Your task to perform on an android device: Add "dell alienware" to the cart on costco.com, then select checkout. Image 0: 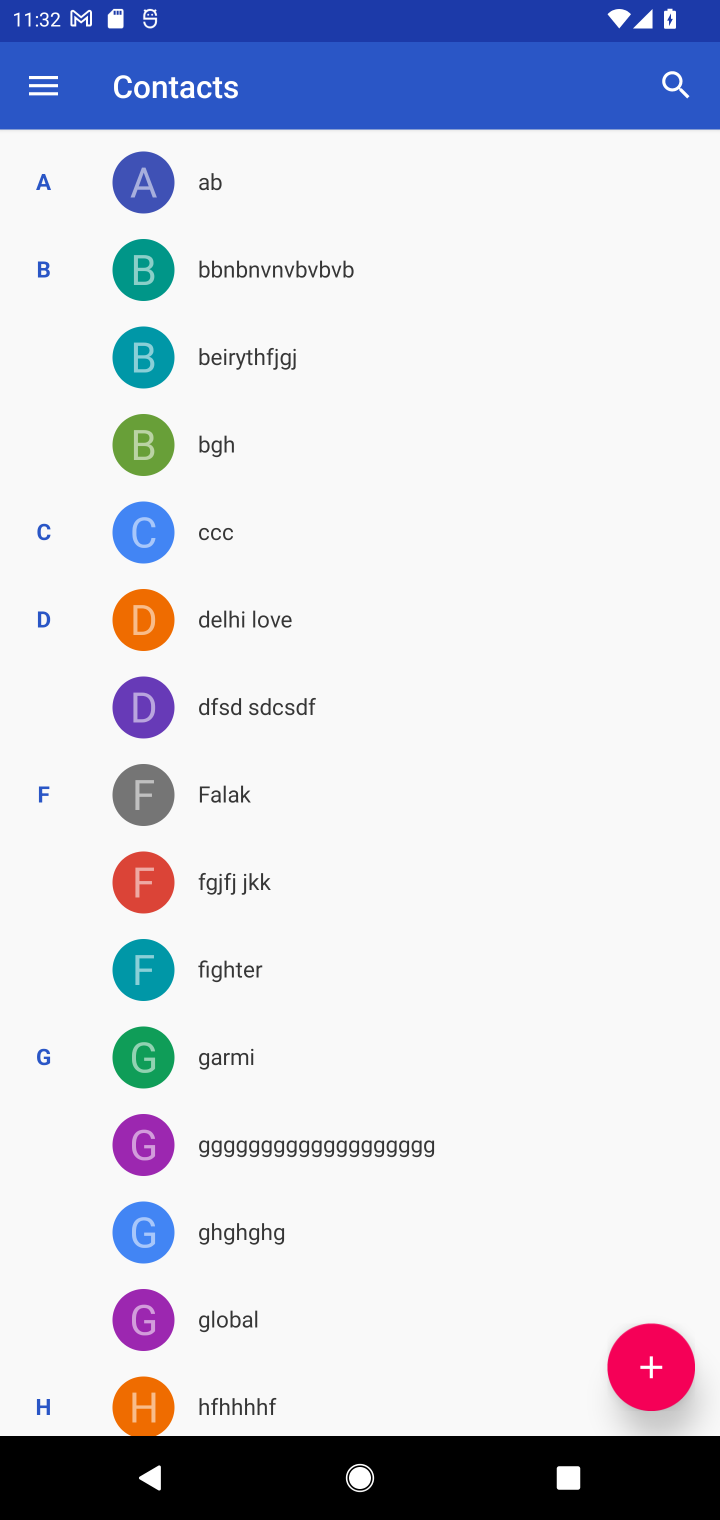
Step 0: press home button
Your task to perform on an android device: Add "dell alienware" to the cart on costco.com, then select checkout. Image 1: 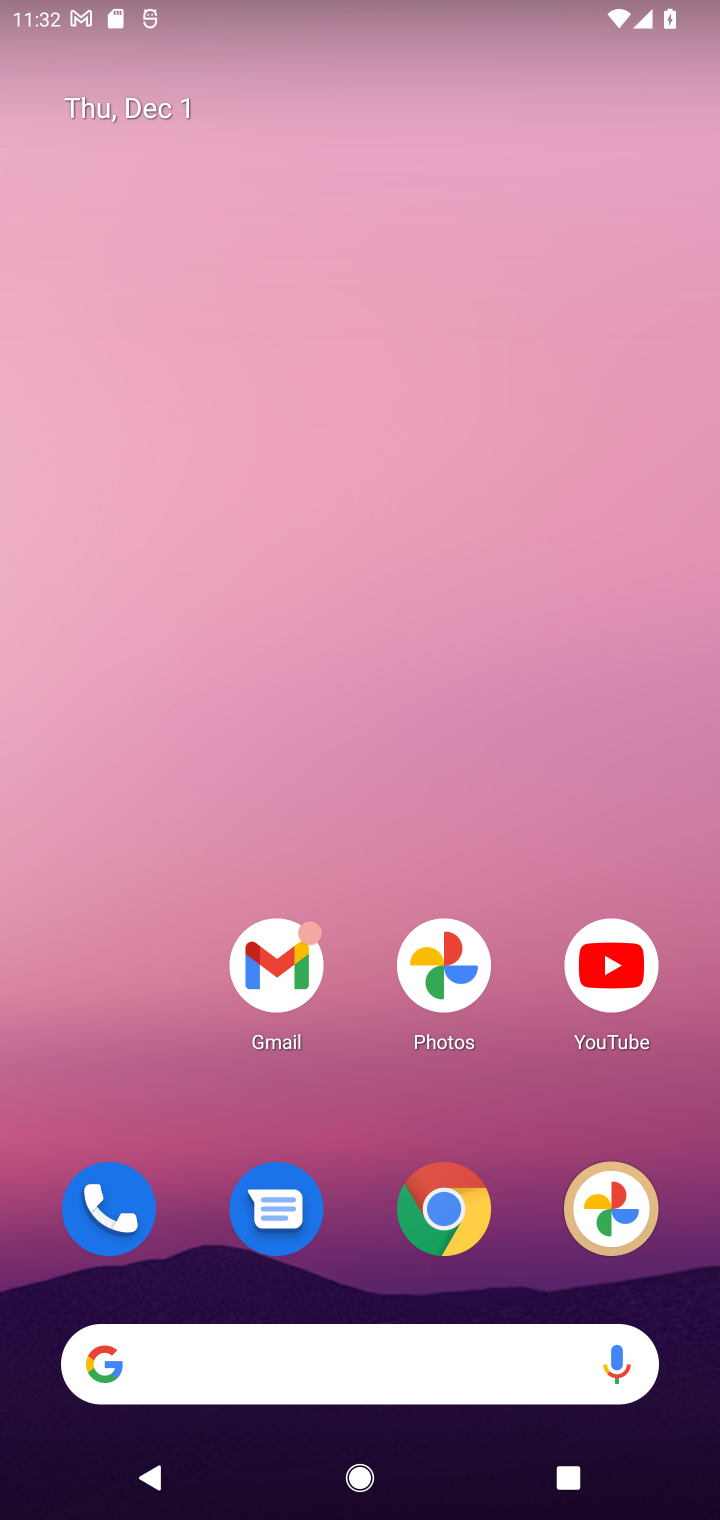
Step 1: click (441, 1211)
Your task to perform on an android device: Add "dell alienware" to the cart on costco.com, then select checkout. Image 2: 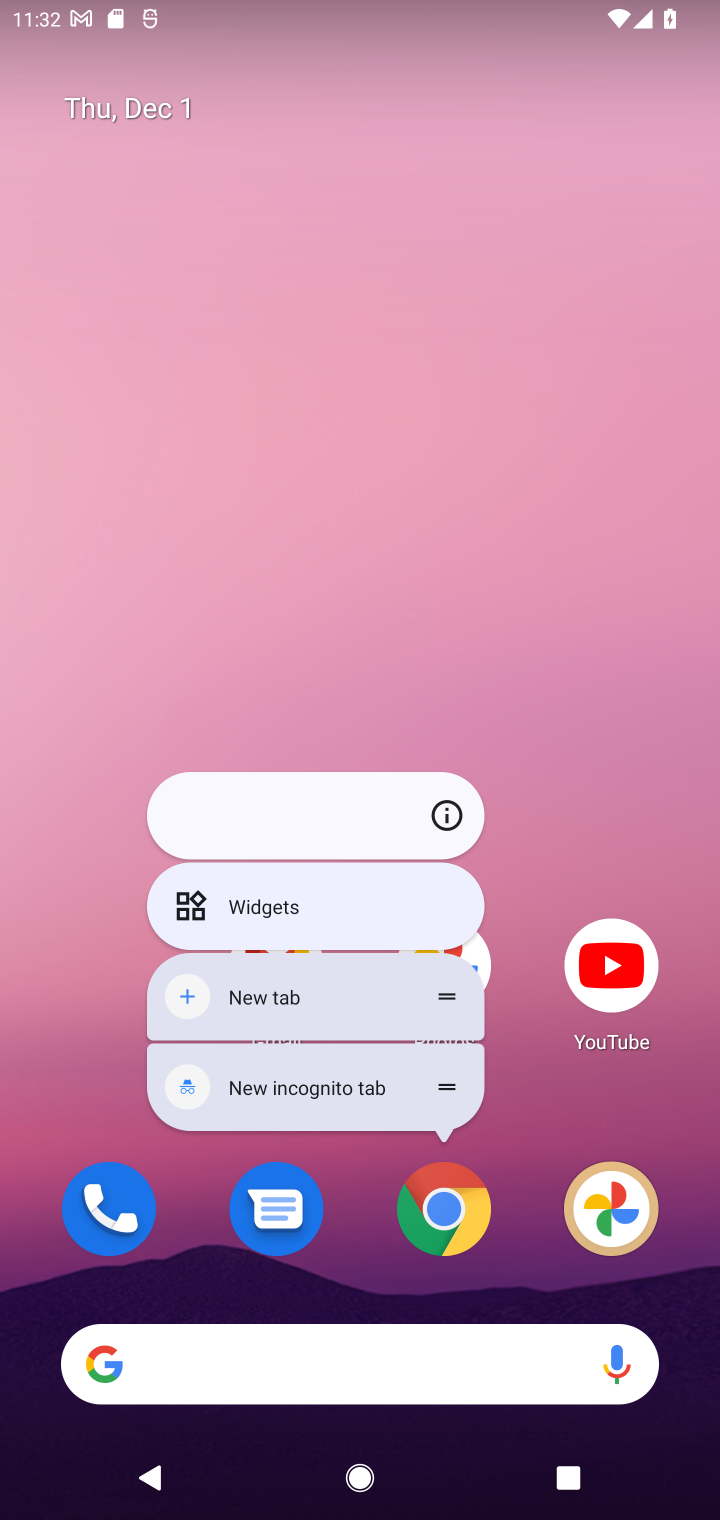
Step 2: click (439, 1203)
Your task to perform on an android device: Add "dell alienware" to the cart on costco.com, then select checkout. Image 3: 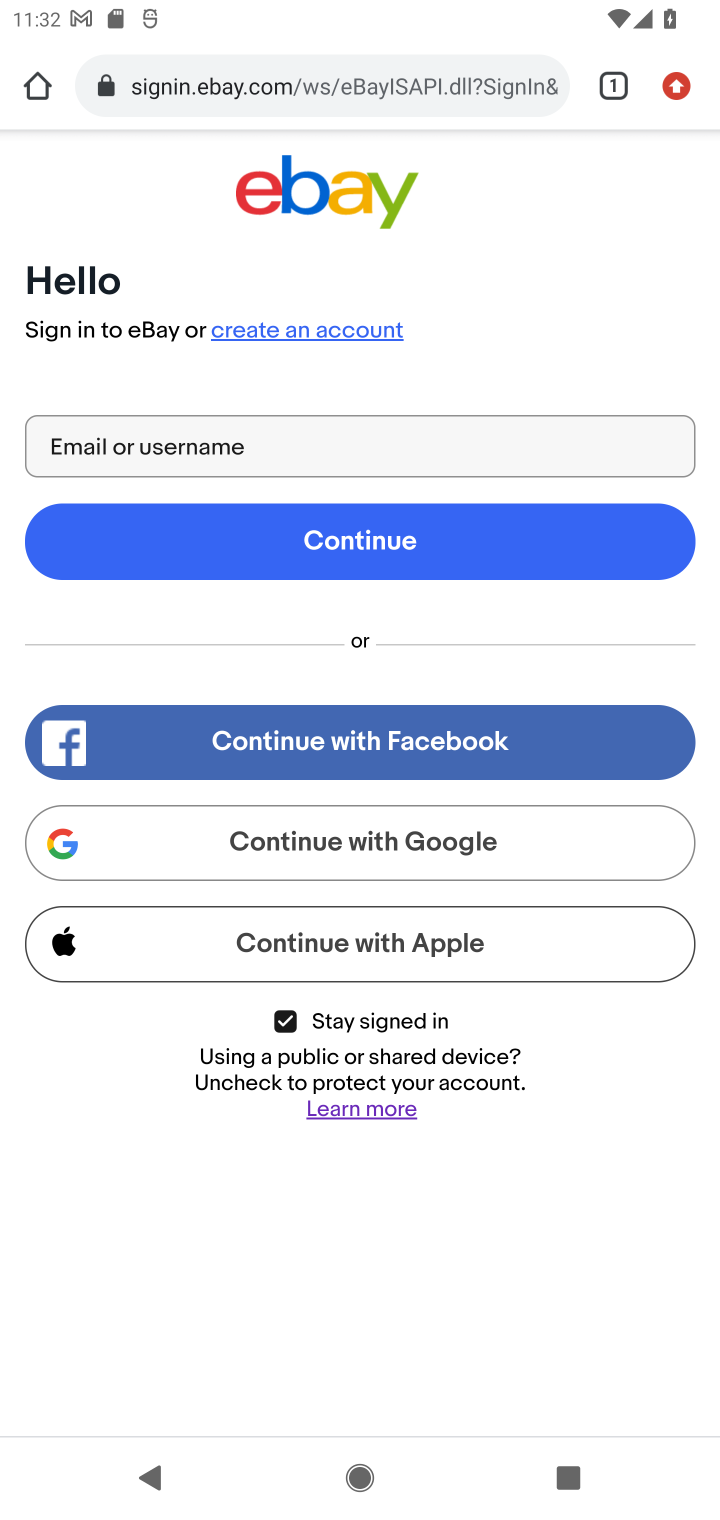
Step 3: click (365, 93)
Your task to perform on an android device: Add "dell alienware" to the cart on costco.com, then select checkout. Image 4: 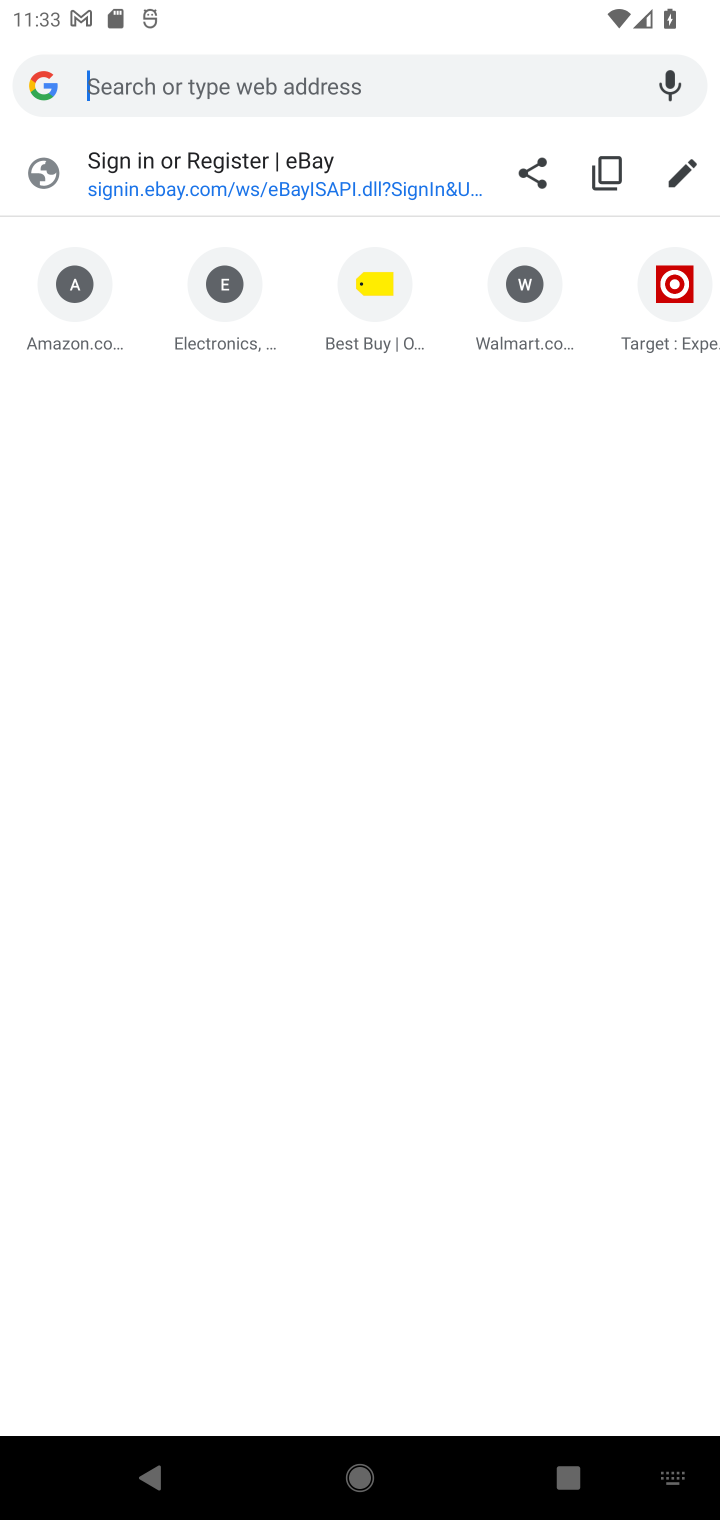
Step 4: type "costco"
Your task to perform on an android device: Add "dell alienware" to the cart on costco.com, then select checkout. Image 5: 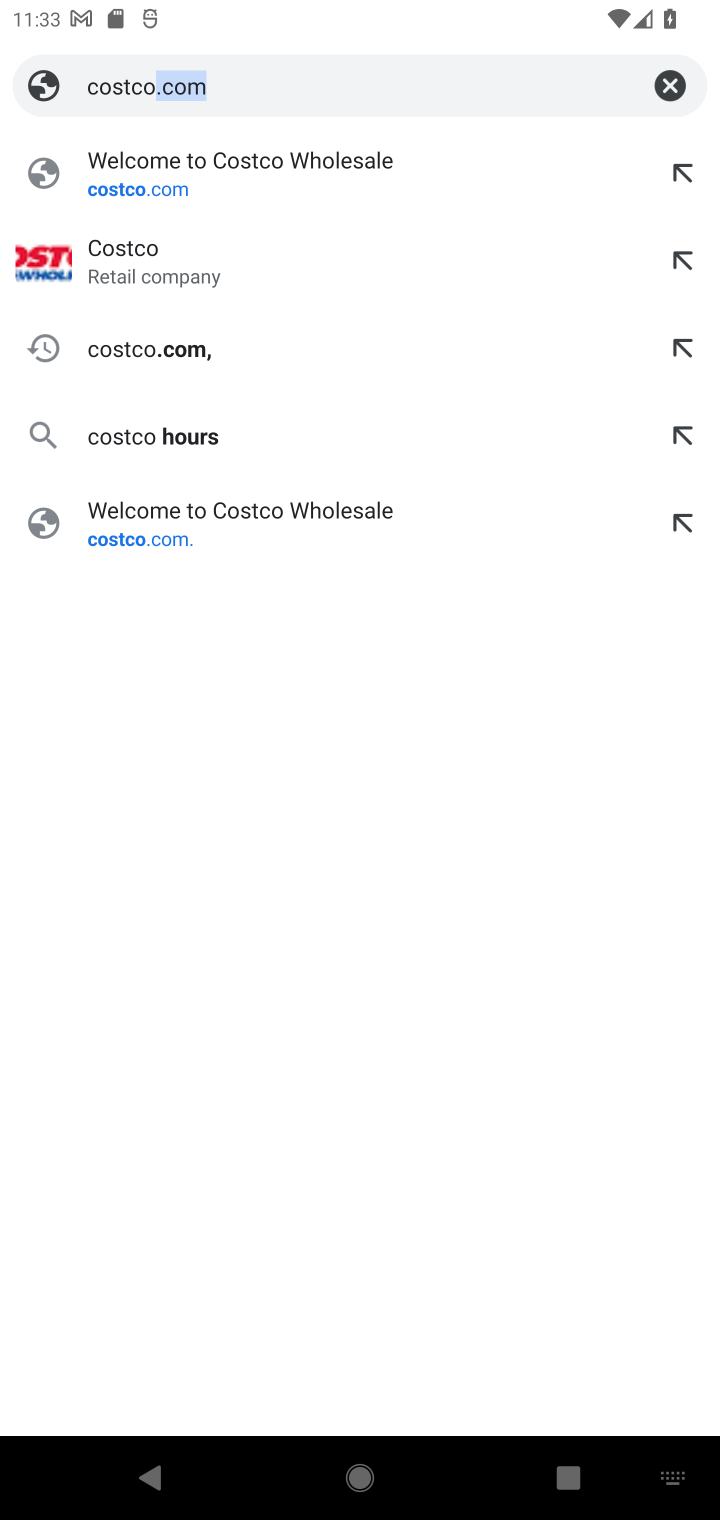
Step 5: click (120, 261)
Your task to perform on an android device: Add "dell alienware" to the cart on costco.com, then select checkout. Image 6: 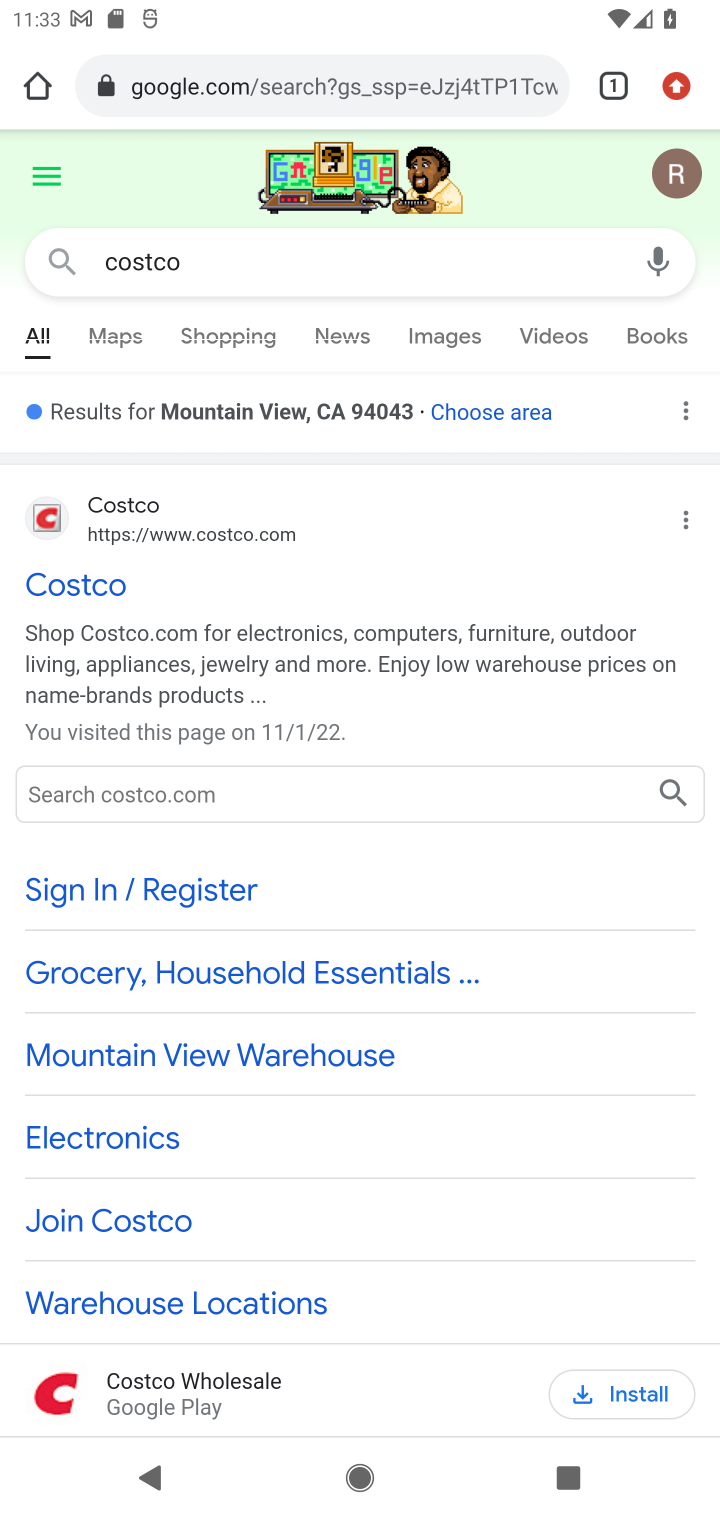
Step 6: click (87, 596)
Your task to perform on an android device: Add "dell alienware" to the cart on costco.com, then select checkout. Image 7: 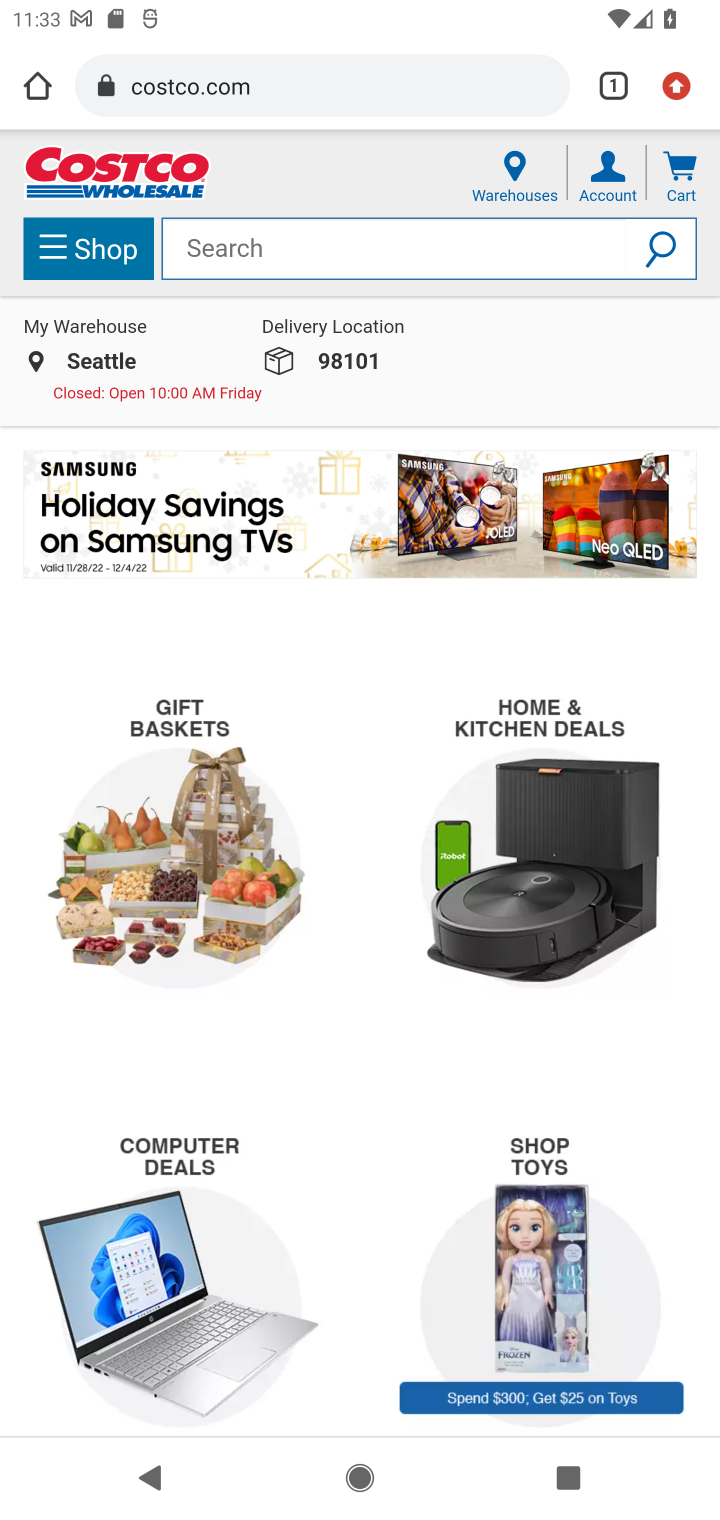
Step 7: click (353, 256)
Your task to perform on an android device: Add "dell alienware" to the cart on costco.com, then select checkout. Image 8: 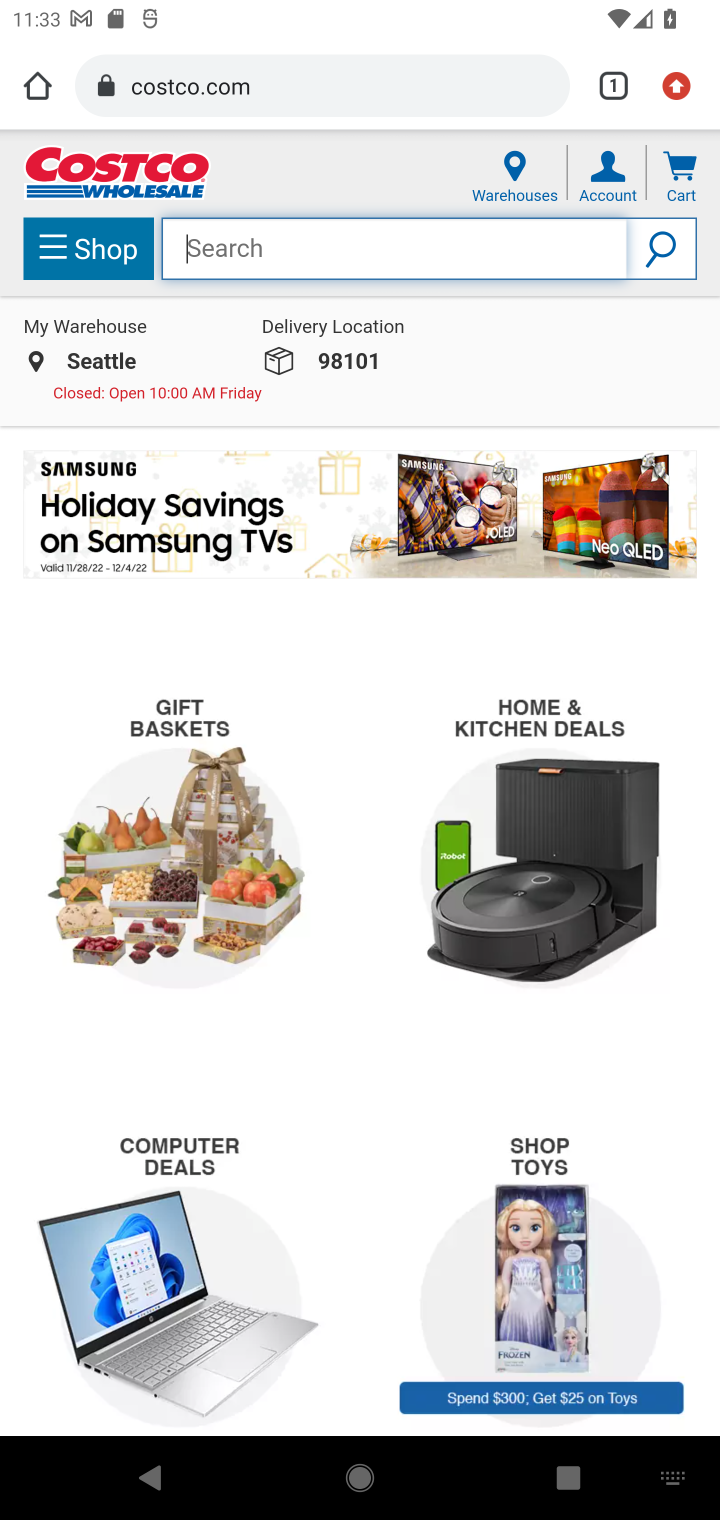
Step 8: type "dell alienware"
Your task to perform on an android device: Add "dell alienware" to the cart on costco.com, then select checkout. Image 9: 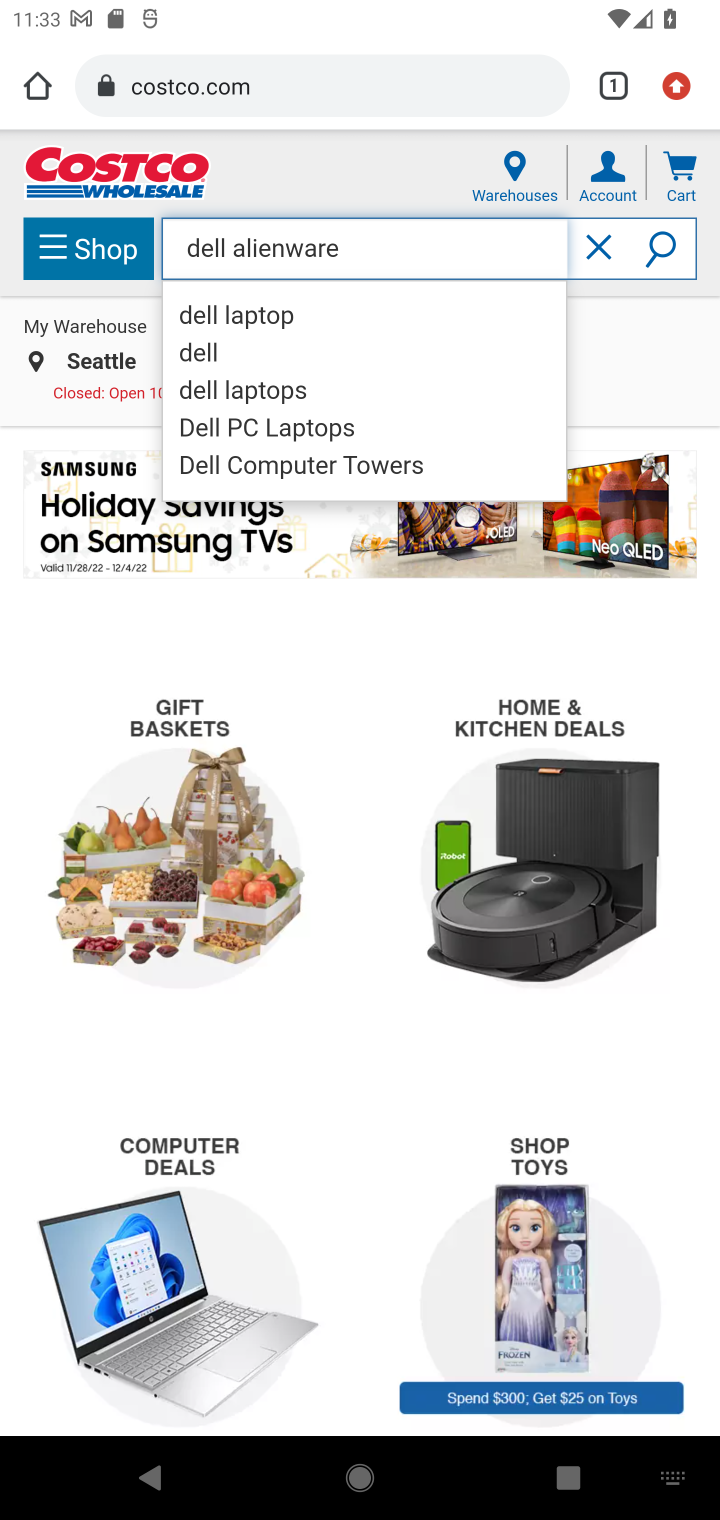
Step 9: click (243, 325)
Your task to perform on an android device: Add "dell alienware" to the cart on costco.com, then select checkout. Image 10: 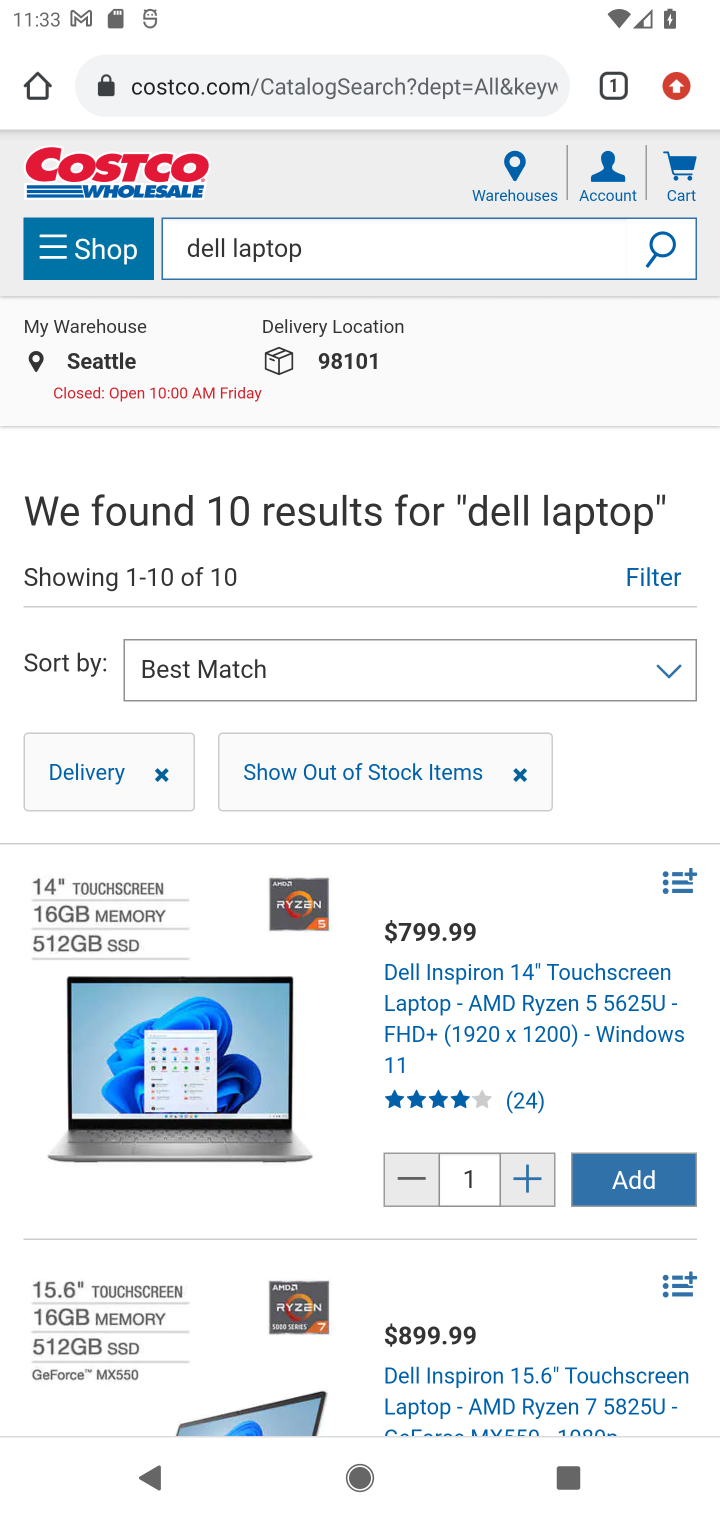
Step 10: click (644, 1179)
Your task to perform on an android device: Add "dell alienware" to the cart on costco.com, then select checkout. Image 11: 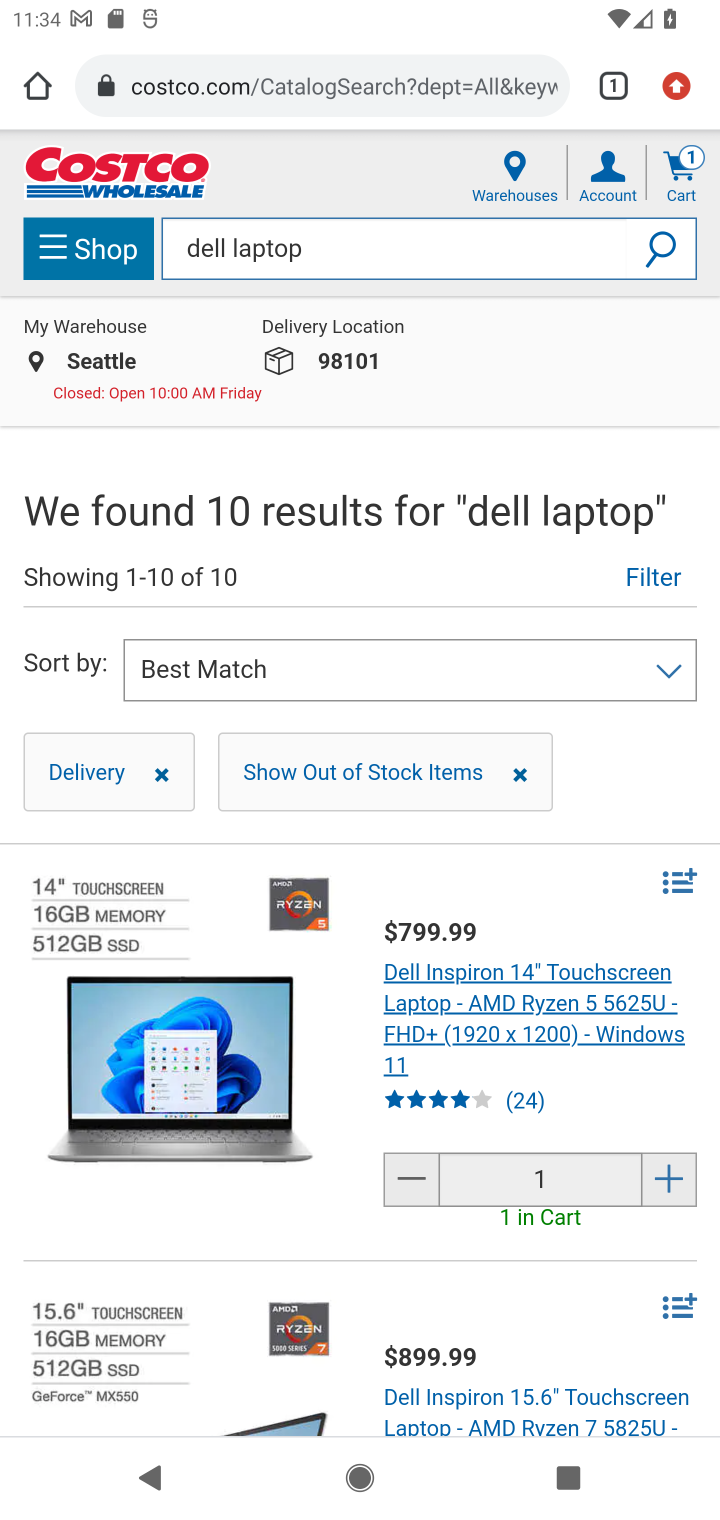
Step 11: click (246, 1089)
Your task to perform on an android device: Add "dell alienware" to the cart on costco.com, then select checkout. Image 12: 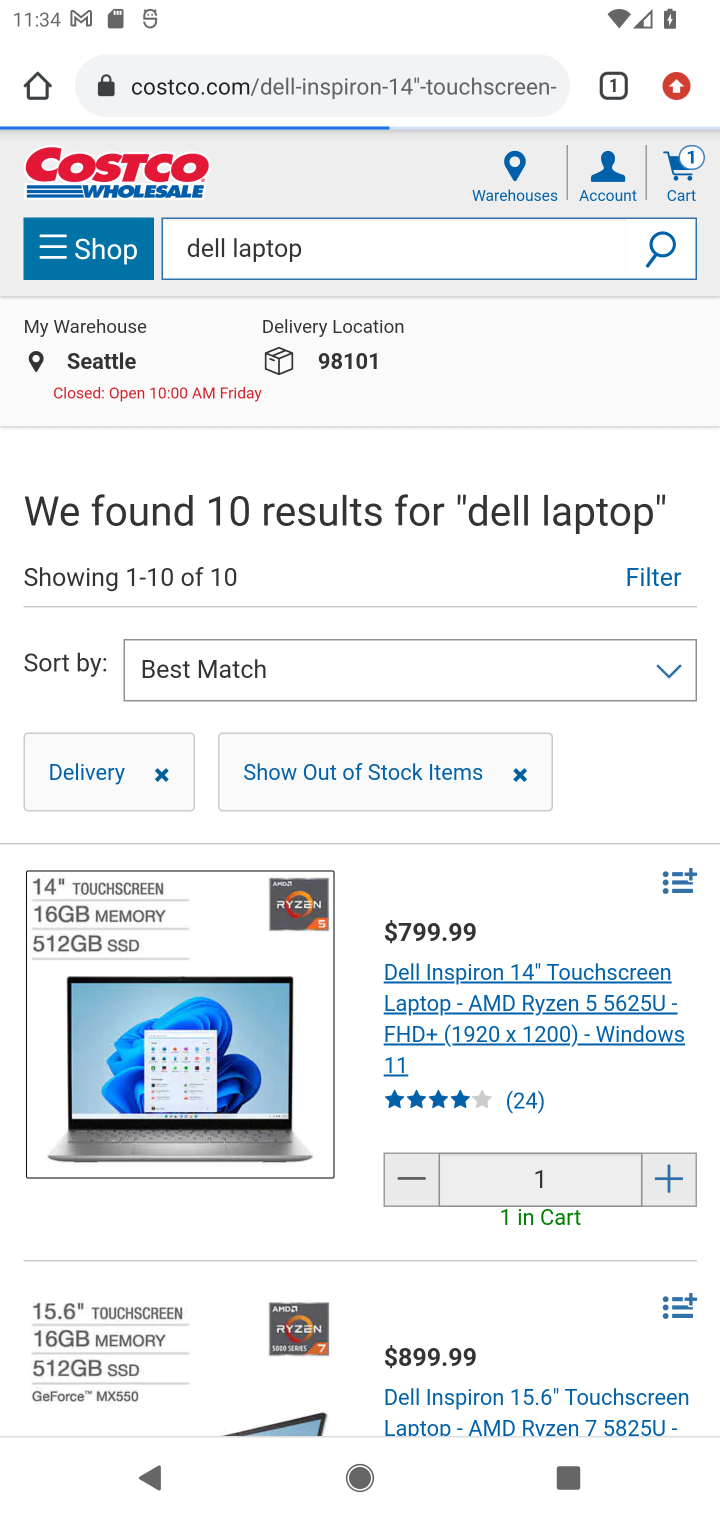
Step 12: click (678, 167)
Your task to perform on an android device: Add "dell alienware" to the cart on costco.com, then select checkout. Image 13: 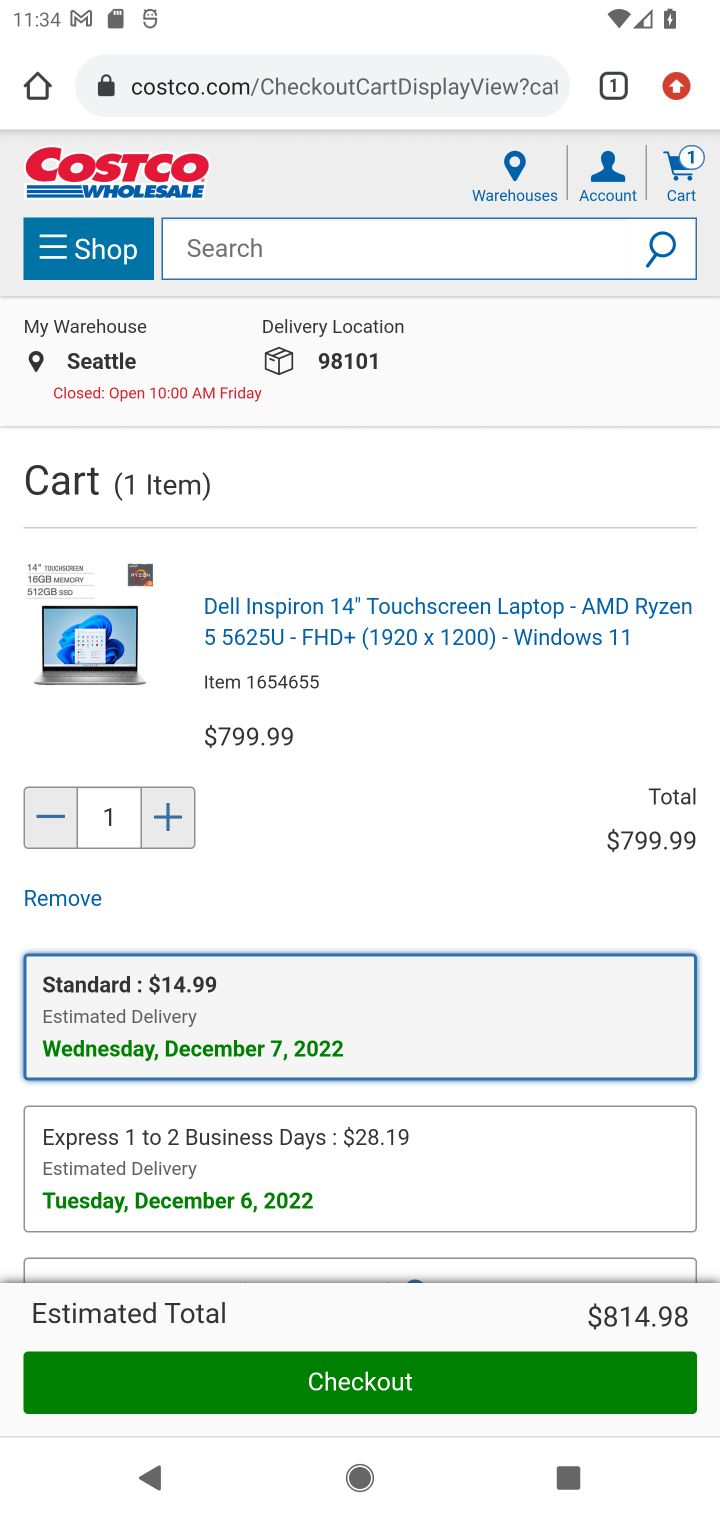
Step 13: click (378, 1379)
Your task to perform on an android device: Add "dell alienware" to the cart on costco.com, then select checkout. Image 14: 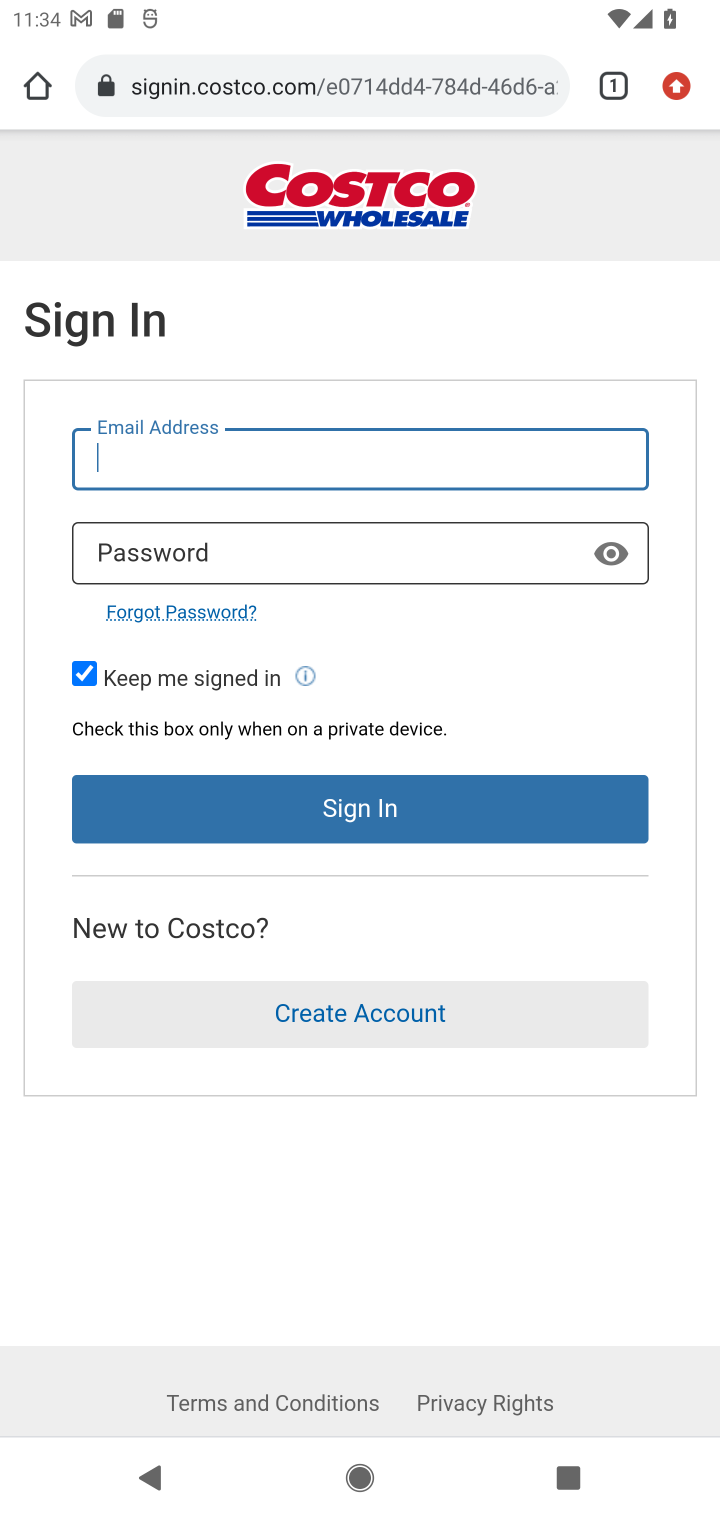
Step 14: task complete